Your task to perform on an android device: Go to Yahoo.com Image 0: 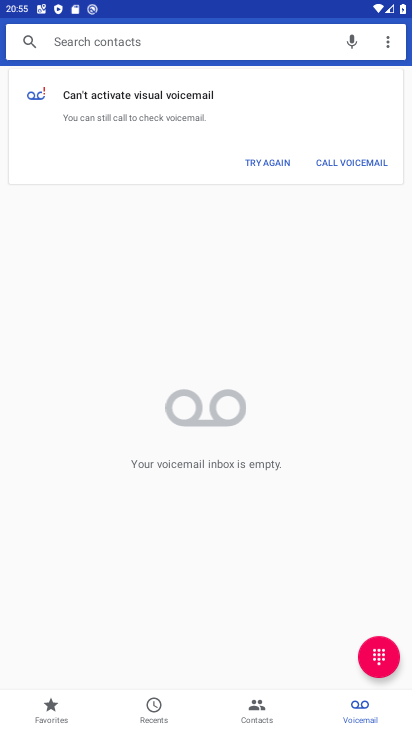
Step 0: press back button
Your task to perform on an android device: Go to Yahoo.com Image 1: 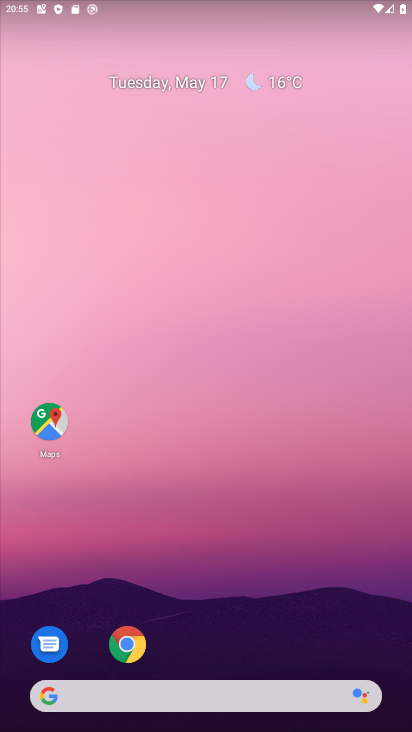
Step 1: click (140, 649)
Your task to perform on an android device: Go to Yahoo.com Image 2: 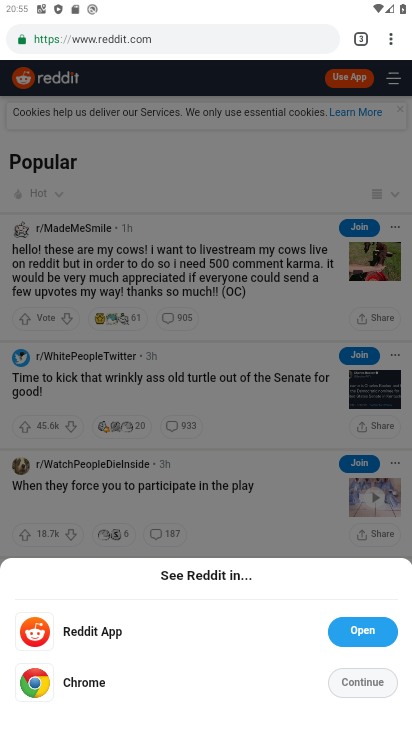
Step 2: click (367, 44)
Your task to perform on an android device: Go to Yahoo.com Image 3: 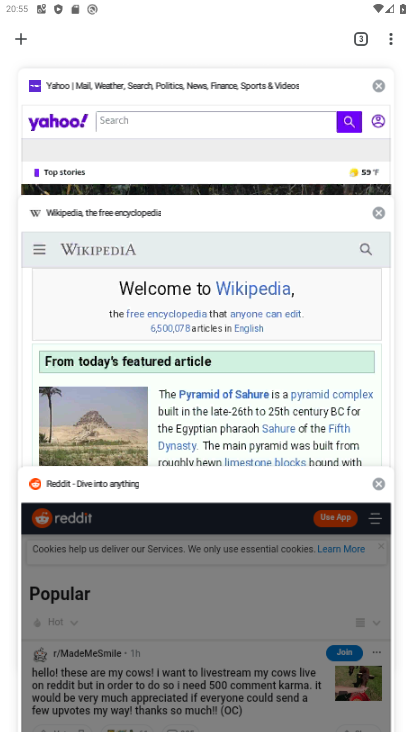
Step 3: click (118, 99)
Your task to perform on an android device: Go to Yahoo.com Image 4: 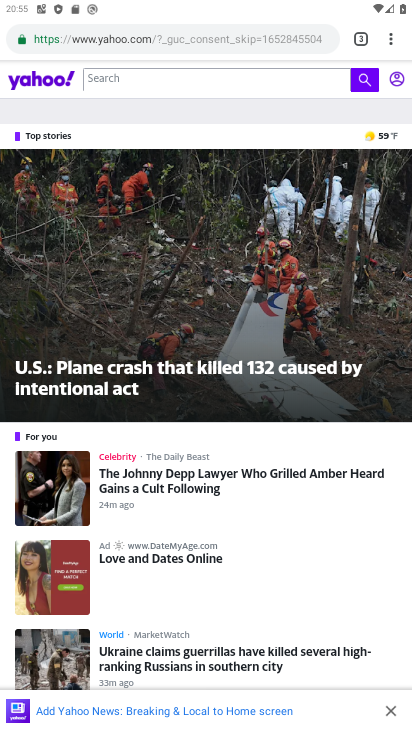
Step 4: task complete